Your task to perform on an android device: Search for hotels in Zurich Image 0: 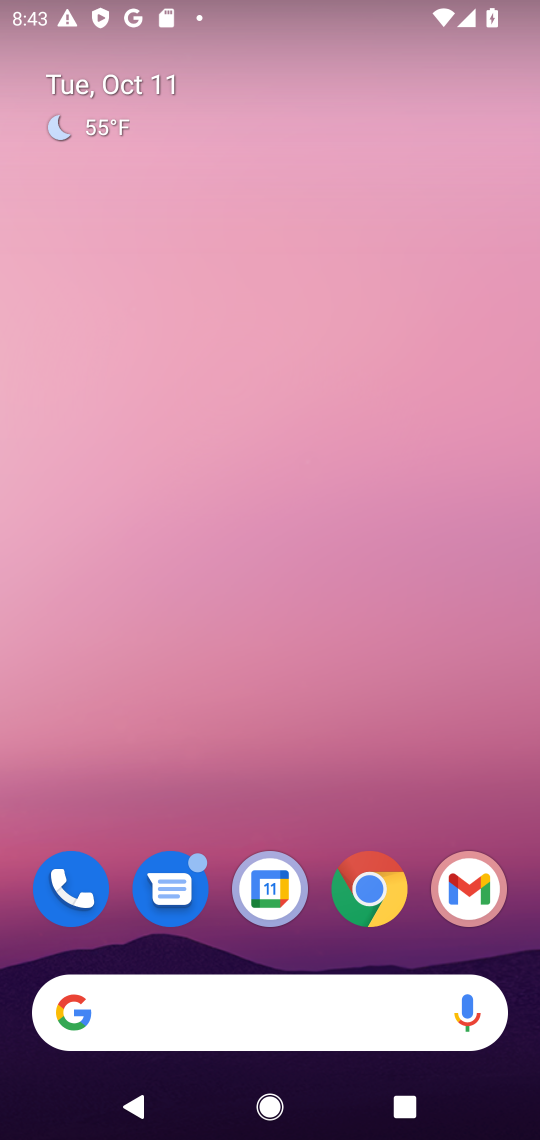
Step 0: click (202, 999)
Your task to perform on an android device: Search for hotels in Zurich Image 1: 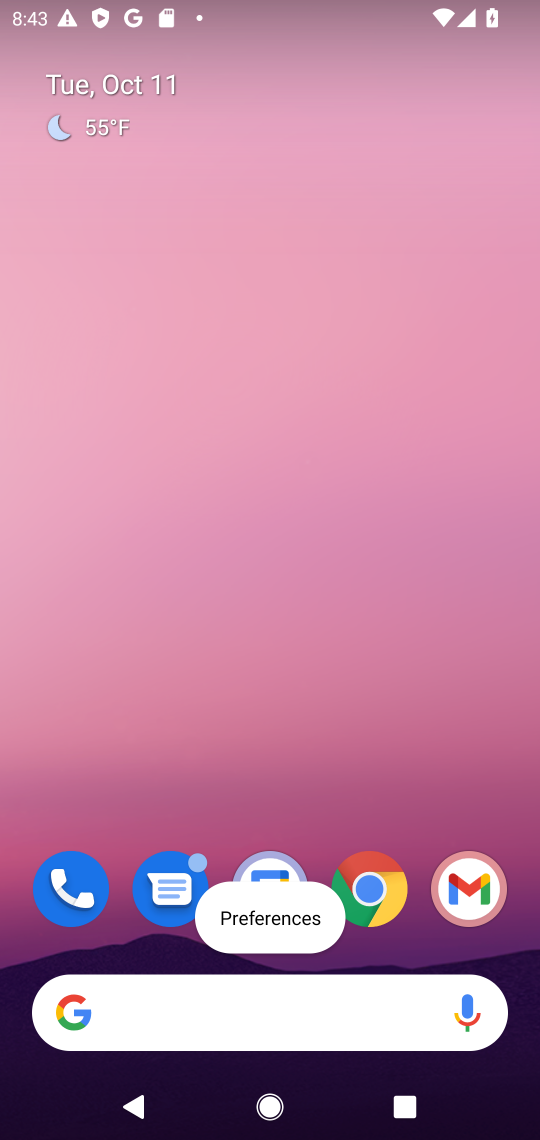
Step 1: click (213, 1027)
Your task to perform on an android device: Search for hotels in Zurich Image 2: 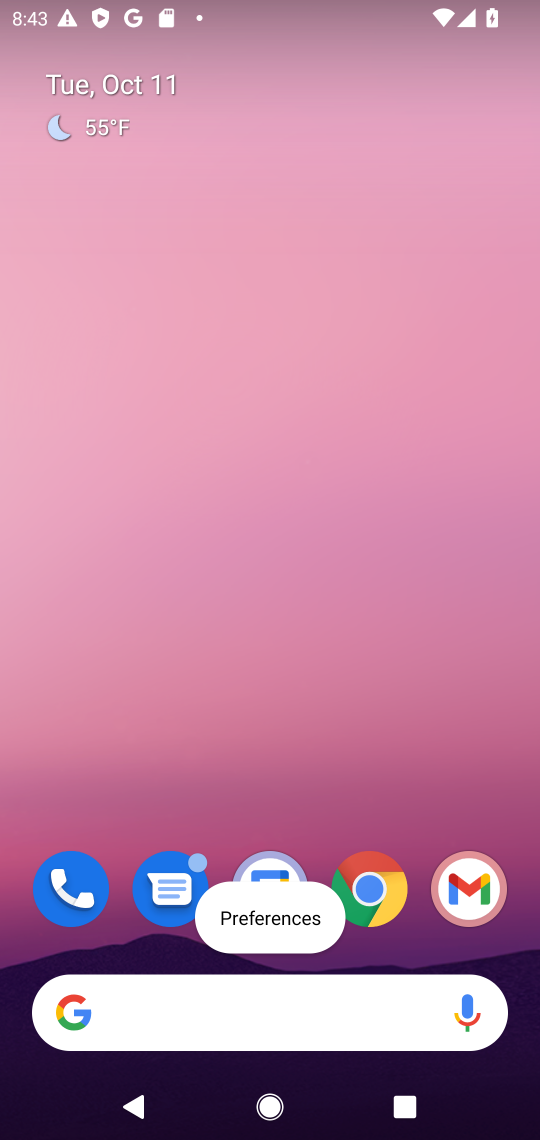
Step 2: click (210, 1013)
Your task to perform on an android device: Search for hotels in Zurich Image 3: 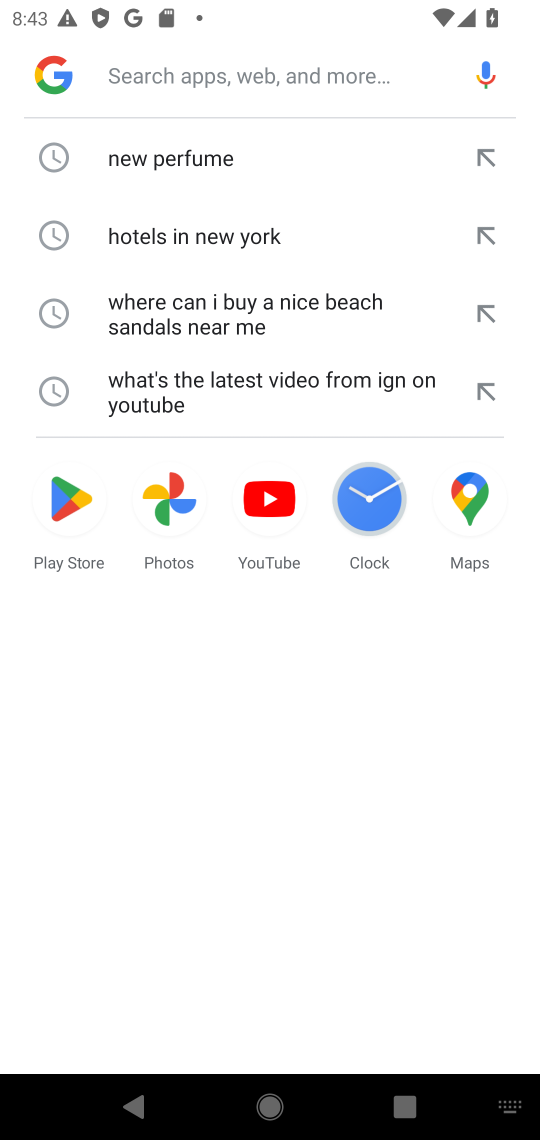
Step 3: click (152, 73)
Your task to perform on an android device: Search for hotels in Zurich Image 4: 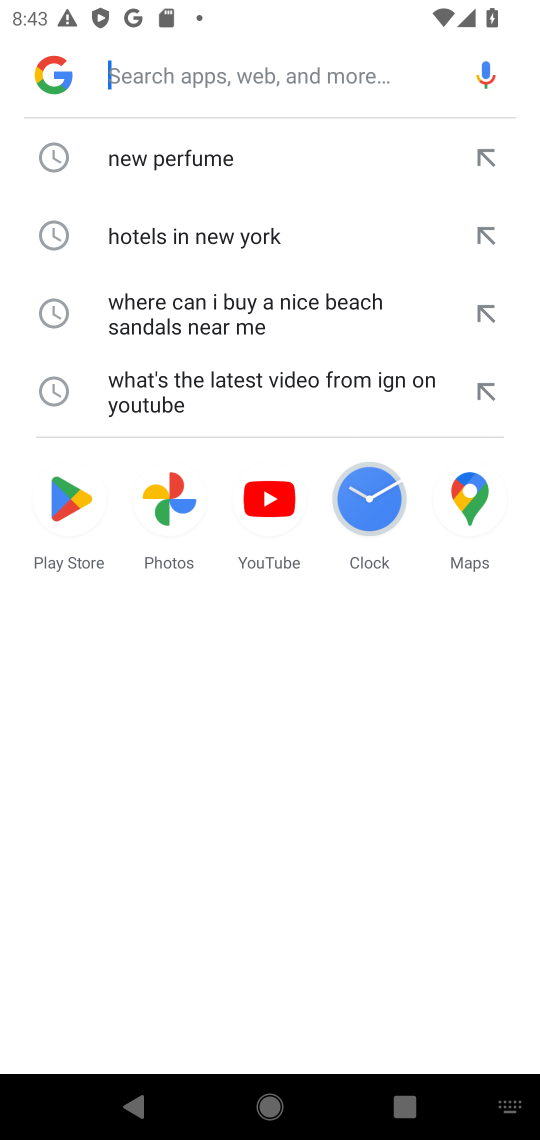
Step 4: type "hotels in Zurich"
Your task to perform on an android device: Search for hotels in Zurich Image 5: 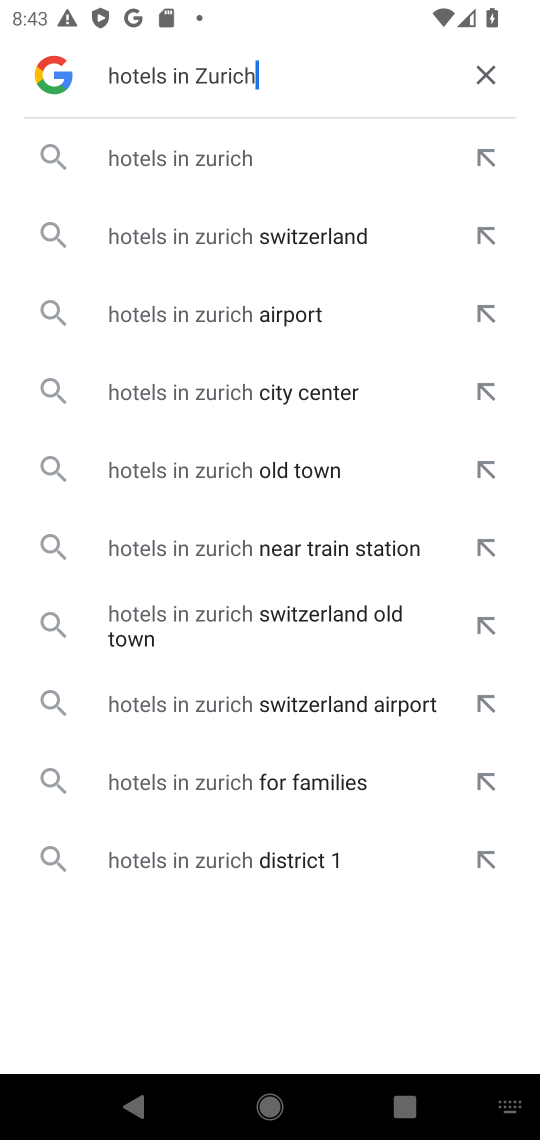
Step 5: click (163, 151)
Your task to perform on an android device: Search for hotels in Zurich Image 6: 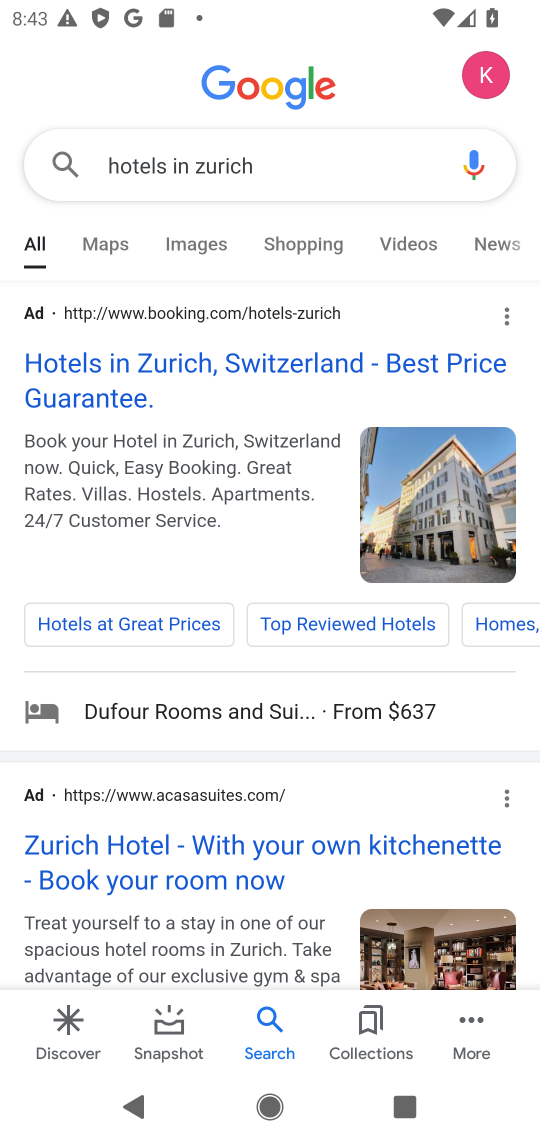
Step 6: task complete